Your task to perform on an android device: toggle wifi Image 0: 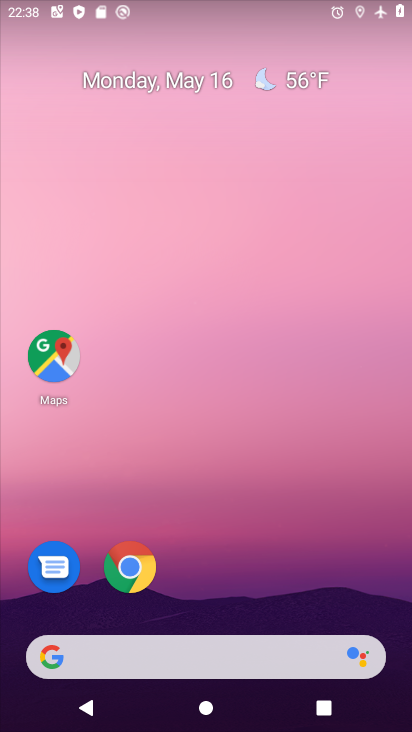
Step 0: drag from (261, 593) to (217, 227)
Your task to perform on an android device: toggle wifi Image 1: 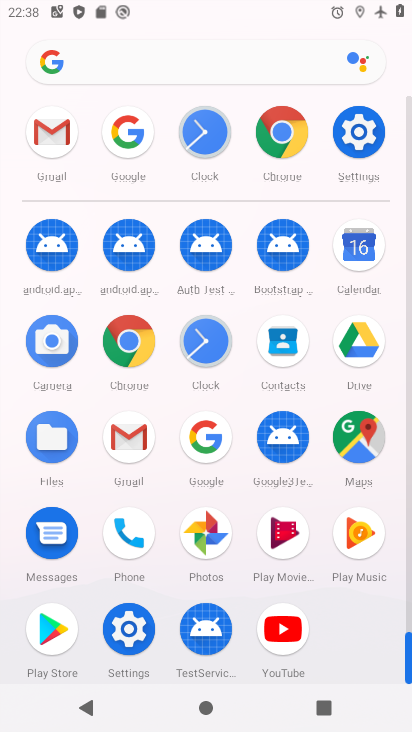
Step 1: click (350, 131)
Your task to perform on an android device: toggle wifi Image 2: 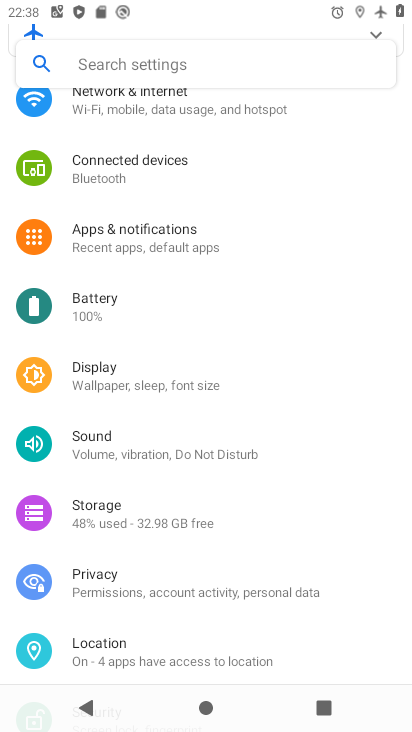
Step 2: click (136, 110)
Your task to perform on an android device: toggle wifi Image 3: 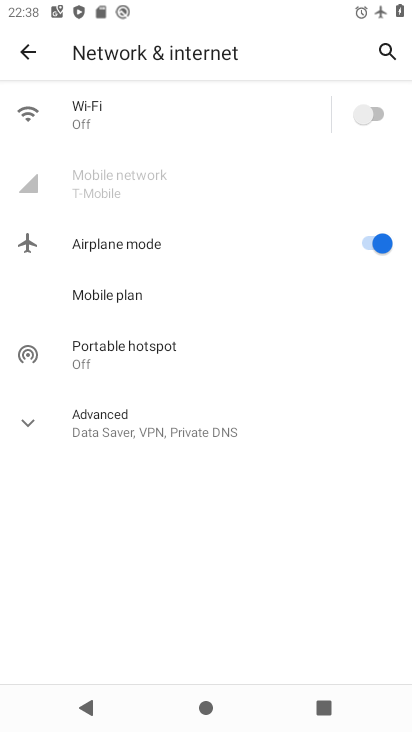
Step 3: click (368, 116)
Your task to perform on an android device: toggle wifi Image 4: 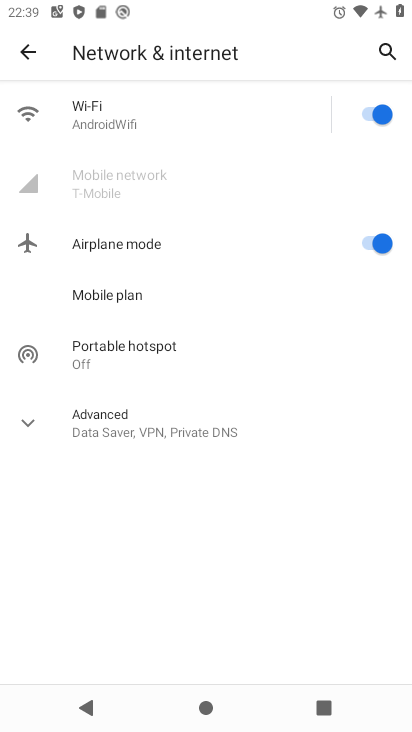
Step 4: task complete